Your task to perform on an android device: Go to Android settings Image 0: 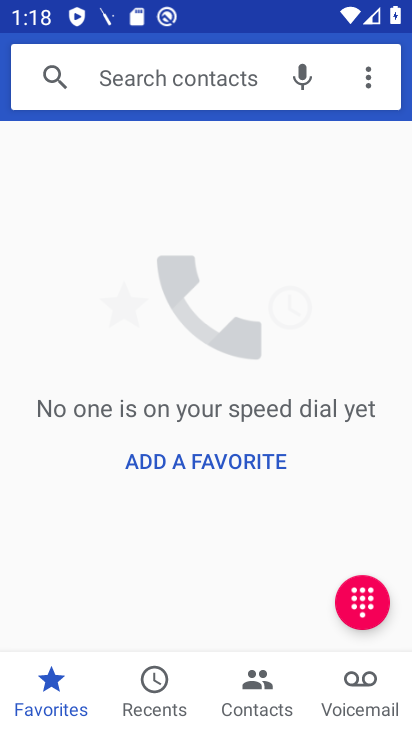
Step 0: press home button
Your task to perform on an android device: Go to Android settings Image 1: 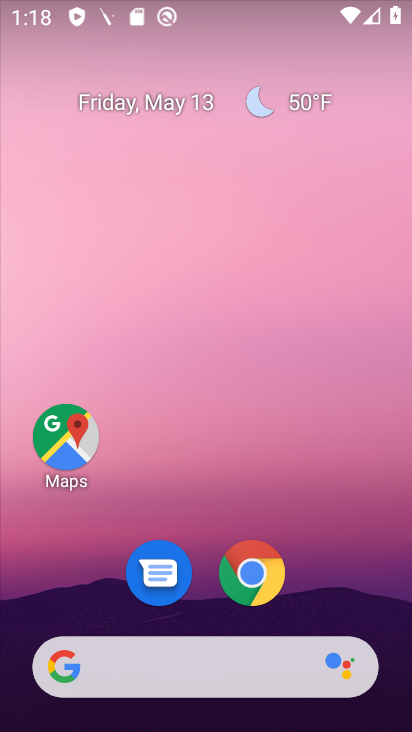
Step 1: drag from (321, 609) to (290, 121)
Your task to perform on an android device: Go to Android settings Image 2: 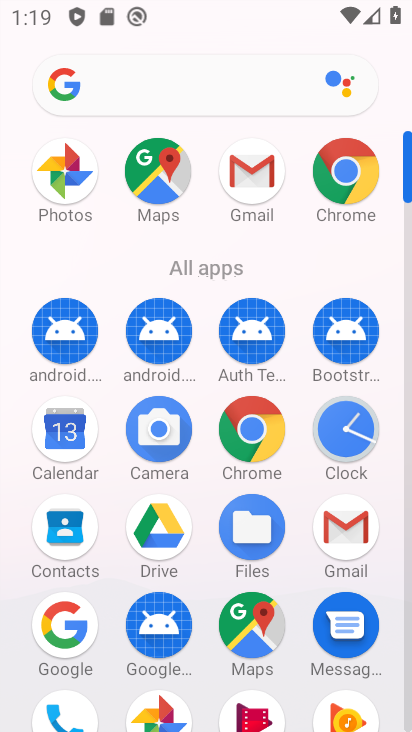
Step 2: drag from (301, 640) to (292, 318)
Your task to perform on an android device: Go to Android settings Image 3: 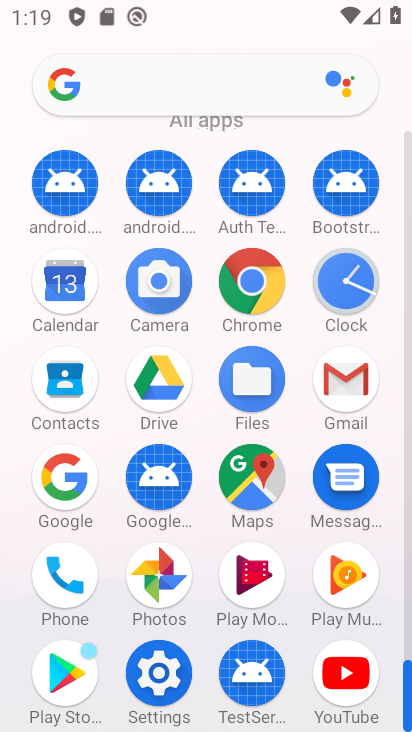
Step 3: click (143, 680)
Your task to perform on an android device: Go to Android settings Image 4: 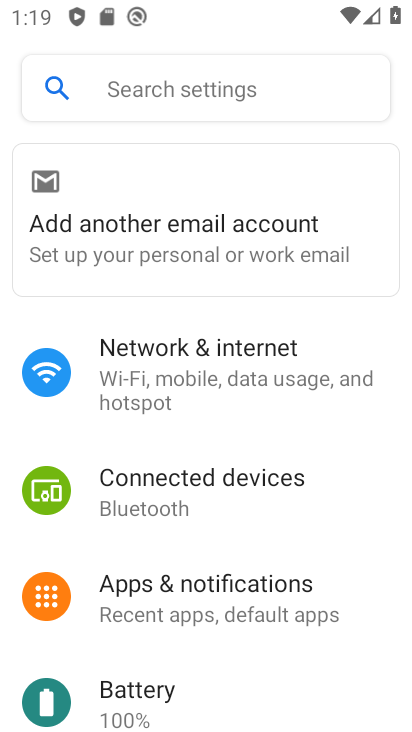
Step 4: drag from (187, 653) to (221, 261)
Your task to perform on an android device: Go to Android settings Image 5: 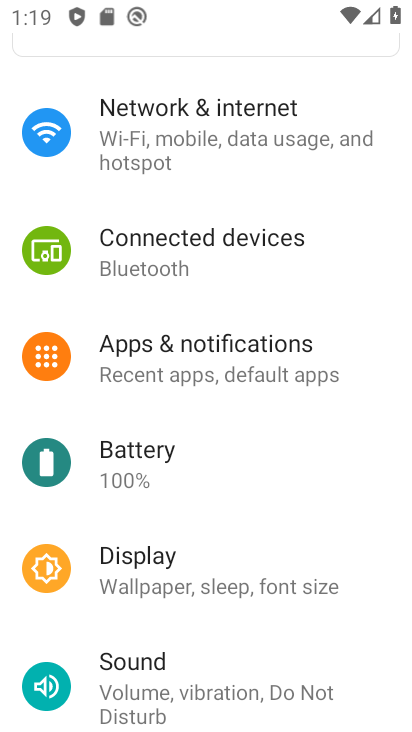
Step 5: drag from (173, 651) to (198, 173)
Your task to perform on an android device: Go to Android settings Image 6: 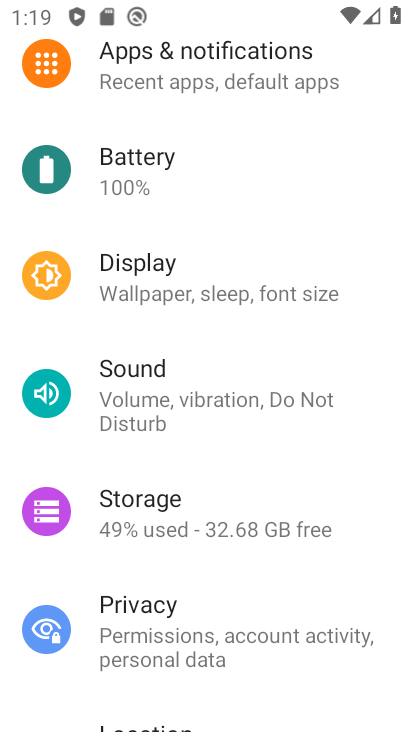
Step 6: drag from (174, 640) to (224, 98)
Your task to perform on an android device: Go to Android settings Image 7: 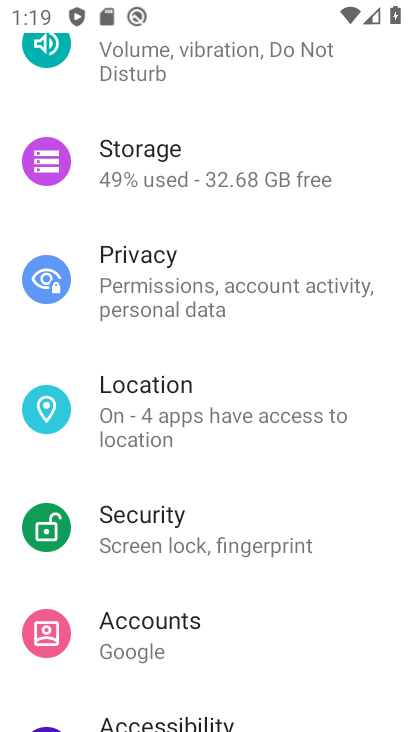
Step 7: drag from (199, 703) to (177, 124)
Your task to perform on an android device: Go to Android settings Image 8: 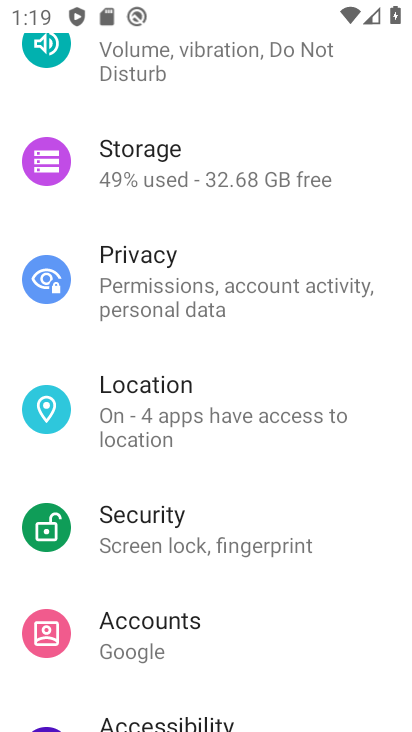
Step 8: drag from (173, 360) to (209, 16)
Your task to perform on an android device: Go to Android settings Image 9: 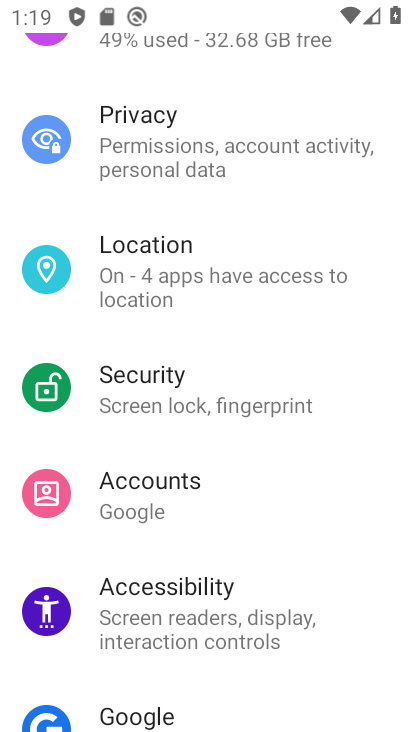
Step 9: drag from (202, 628) to (198, 143)
Your task to perform on an android device: Go to Android settings Image 10: 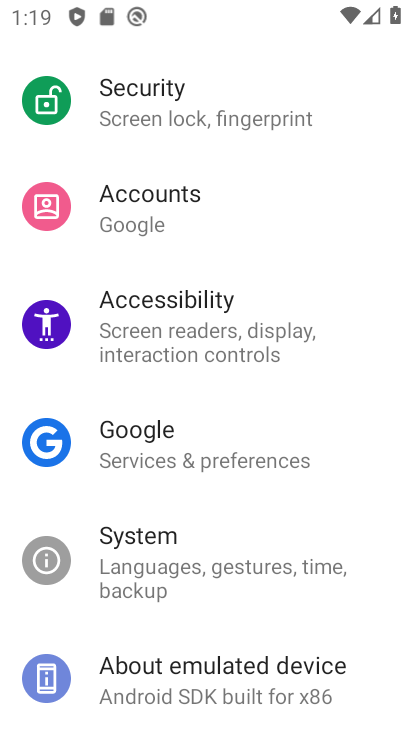
Step 10: click (198, 679)
Your task to perform on an android device: Go to Android settings Image 11: 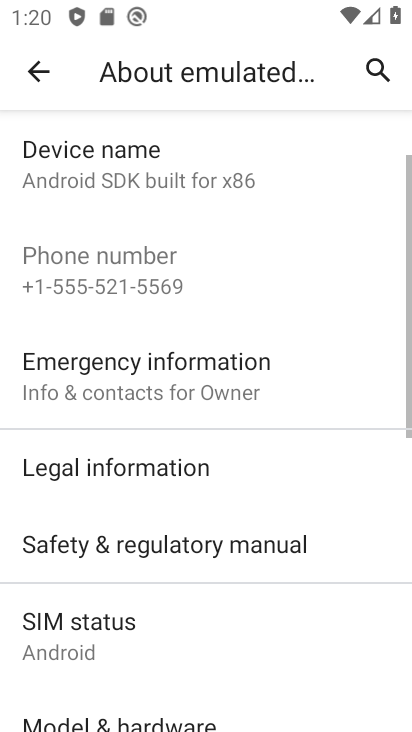
Step 11: drag from (205, 633) to (152, 160)
Your task to perform on an android device: Go to Android settings Image 12: 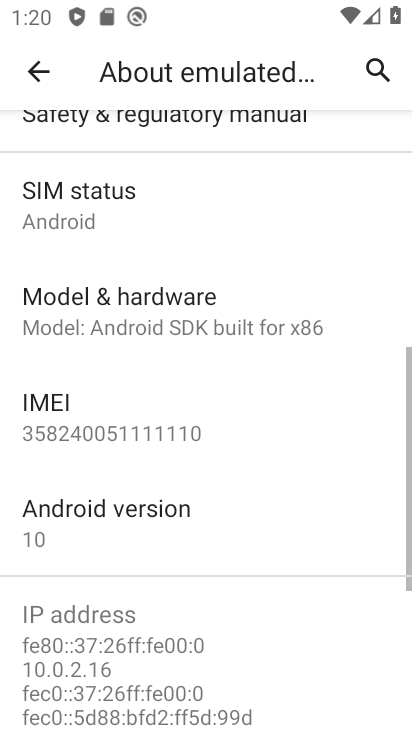
Step 12: click (78, 538)
Your task to perform on an android device: Go to Android settings Image 13: 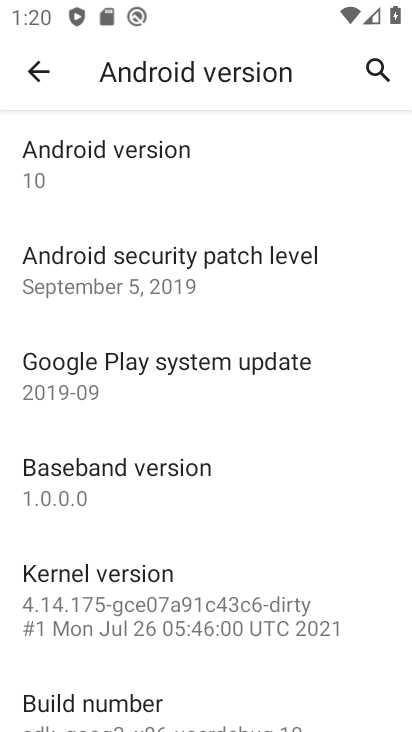
Step 13: task complete